Your task to perform on an android device: check android version Image 0: 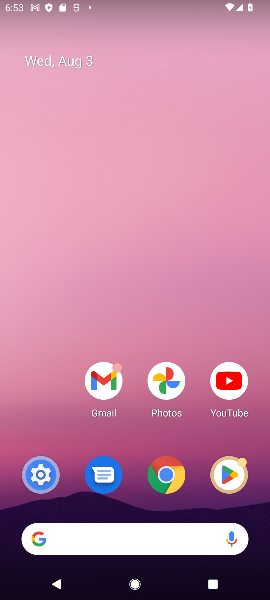
Step 0: drag from (165, 344) to (86, 38)
Your task to perform on an android device: check android version Image 1: 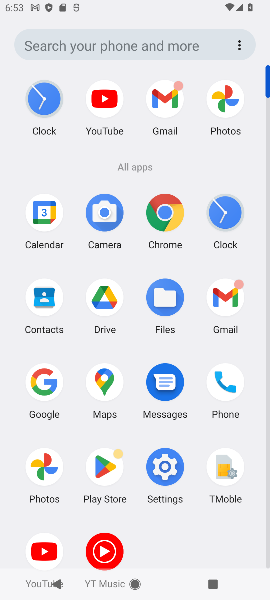
Step 1: click (164, 468)
Your task to perform on an android device: check android version Image 2: 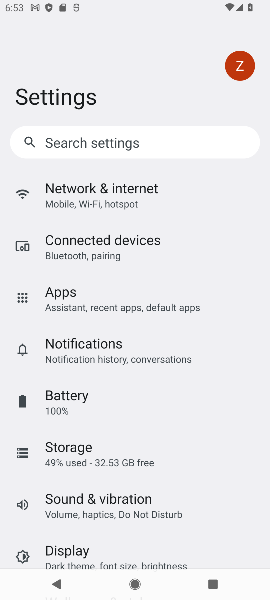
Step 2: drag from (219, 541) to (138, 137)
Your task to perform on an android device: check android version Image 3: 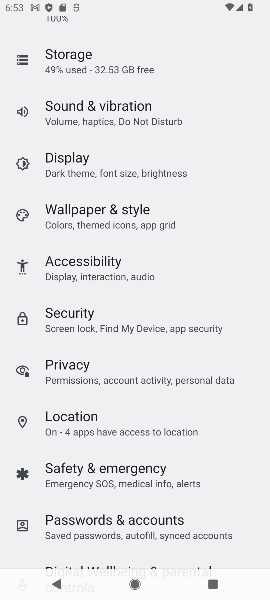
Step 3: drag from (158, 468) to (126, 210)
Your task to perform on an android device: check android version Image 4: 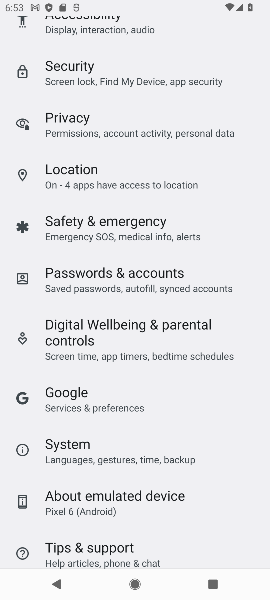
Step 4: drag from (190, 479) to (149, 250)
Your task to perform on an android device: check android version Image 5: 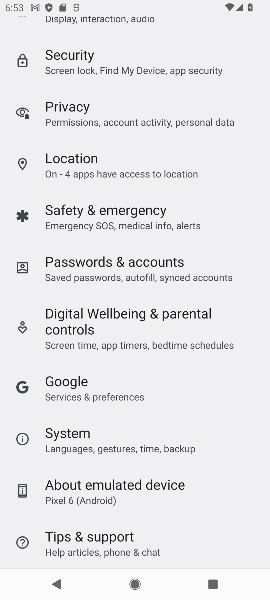
Step 5: click (142, 495)
Your task to perform on an android device: check android version Image 6: 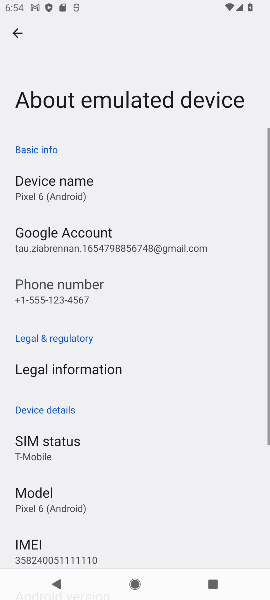
Step 6: drag from (171, 484) to (141, 303)
Your task to perform on an android device: check android version Image 7: 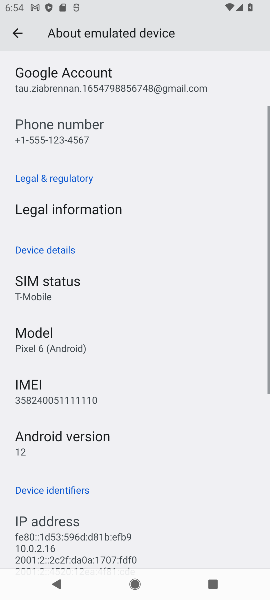
Step 7: click (78, 441)
Your task to perform on an android device: check android version Image 8: 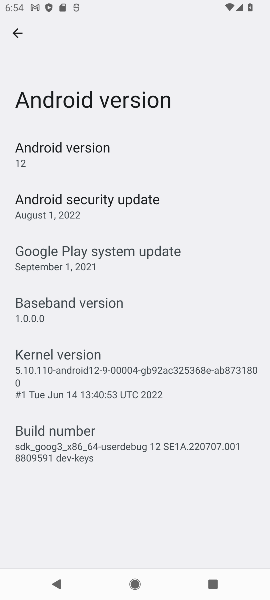
Step 8: task complete